Your task to perform on an android device: Search for Mexican restaurants on Maps Image 0: 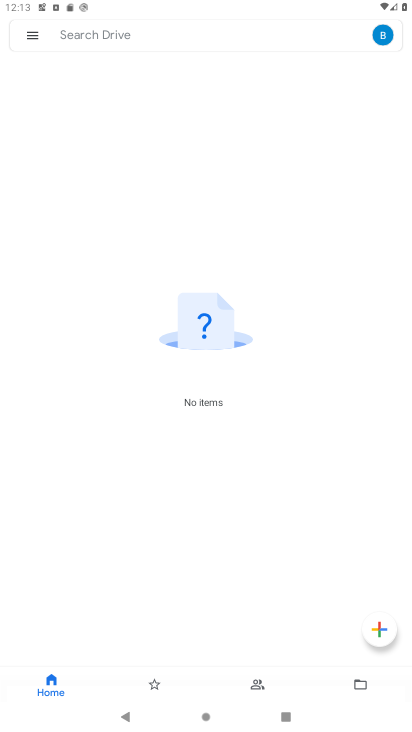
Step 0: press home button
Your task to perform on an android device: Search for Mexican restaurants on Maps Image 1: 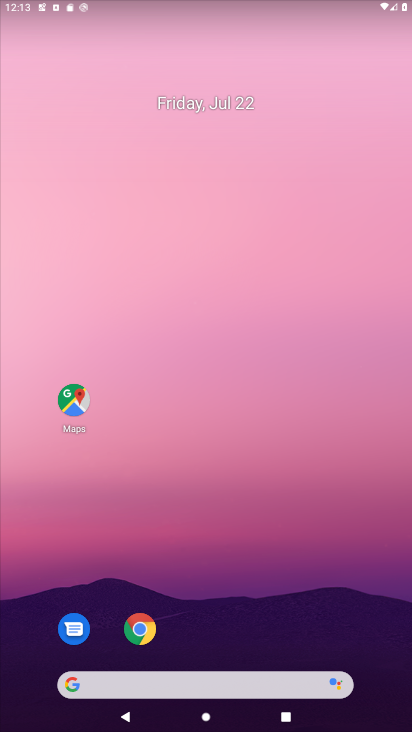
Step 1: drag from (345, 535) to (260, 74)
Your task to perform on an android device: Search for Mexican restaurants on Maps Image 2: 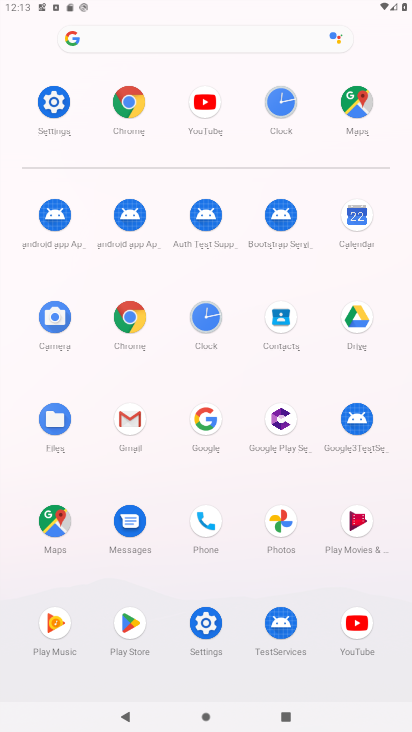
Step 2: click (60, 521)
Your task to perform on an android device: Search for Mexican restaurants on Maps Image 3: 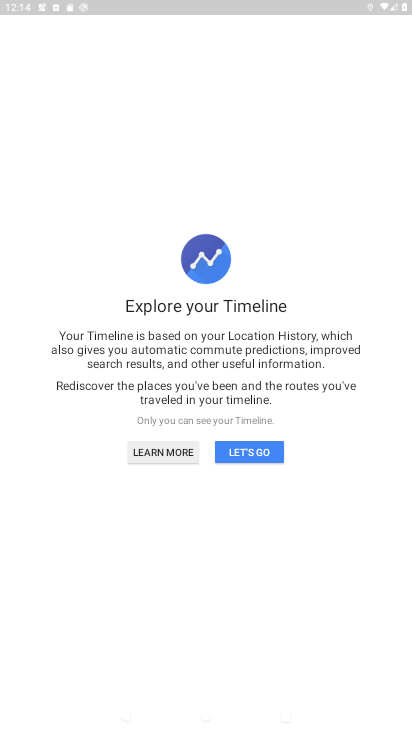
Step 3: press back button
Your task to perform on an android device: Search for Mexican restaurants on Maps Image 4: 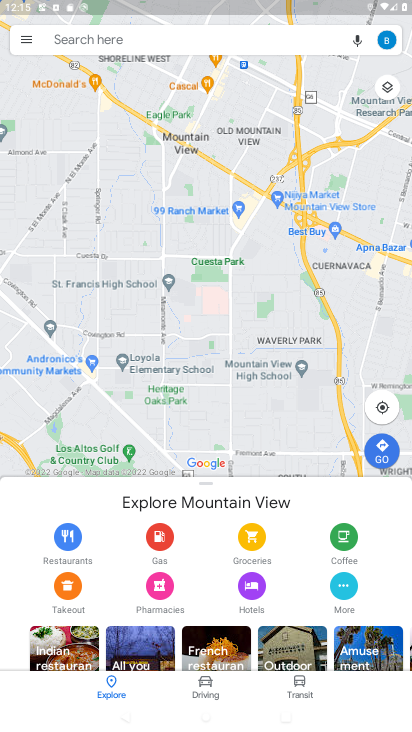
Step 4: click (135, 31)
Your task to perform on an android device: Search for Mexican restaurants on Maps Image 5: 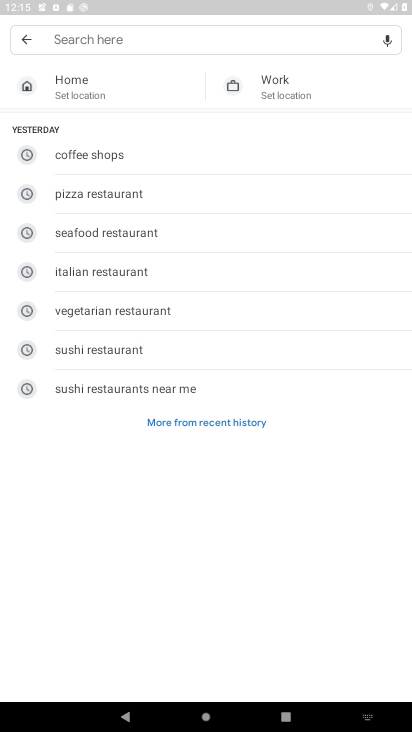
Step 5: type " Mexican restaurants "
Your task to perform on an android device: Search for Mexican restaurants on Maps Image 6: 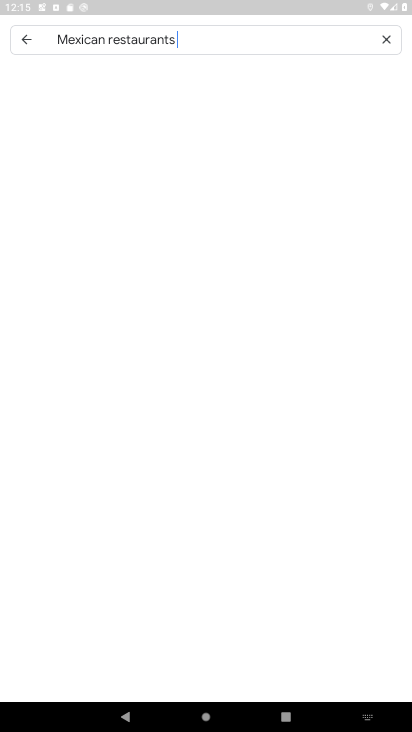
Step 6: type ""
Your task to perform on an android device: Search for Mexican restaurants on Maps Image 7: 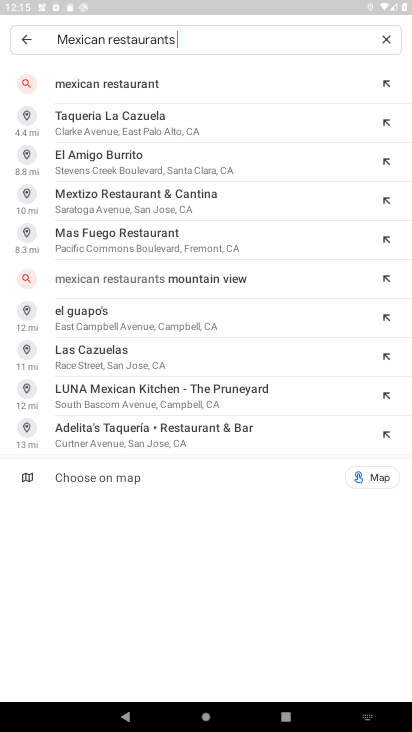
Step 7: click (169, 90)
Your task to perform on an android device: Search for Mexican restaurants on Maps Image 8: 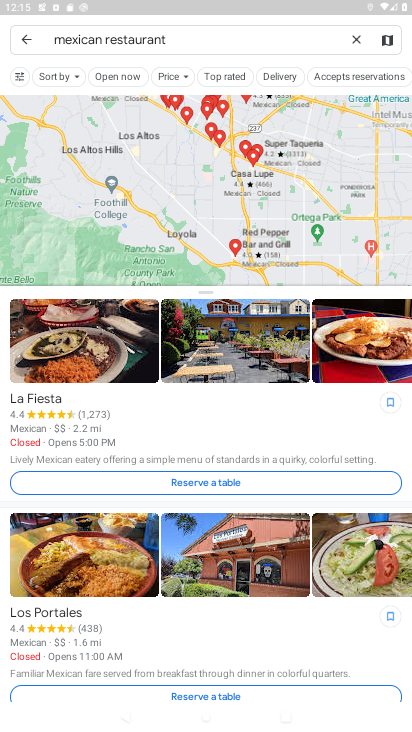
Step 8: task complete